Your task to perform on an android device: Open network settings Image 0: 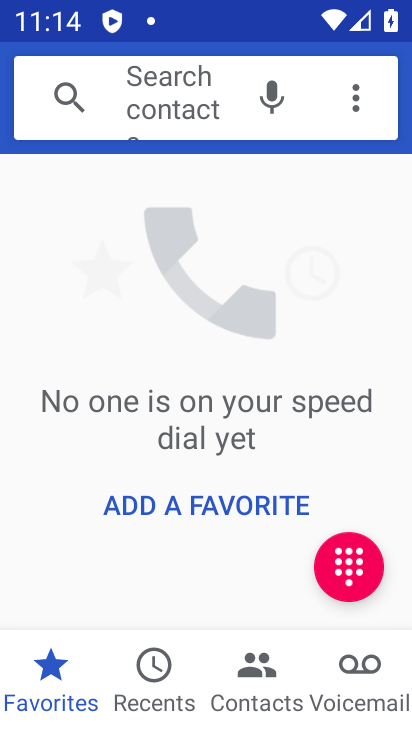
Step 0: press home button
Your task to perform on an android device: Open network settings Image 1: 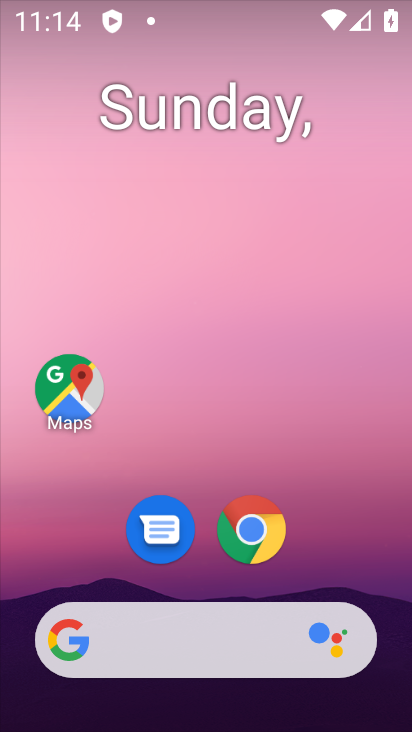
Step 1: drag from (384, 588) to (229, 15)
Your task to perform on an android device: Open network settings Image 2: 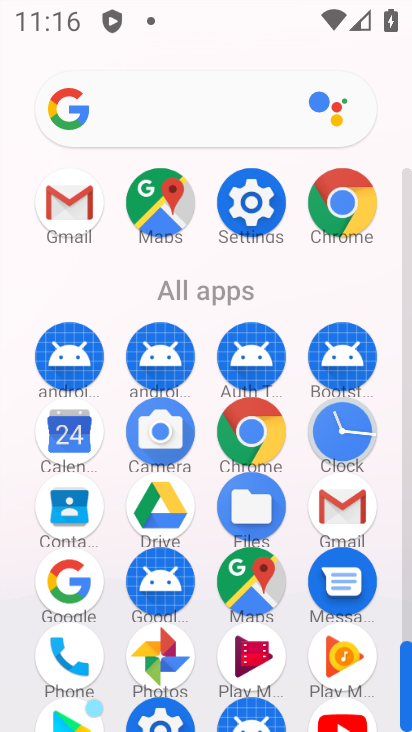
Step 2: click (259, 209)
Your task to perform on an android device: Open network settings Image 3: 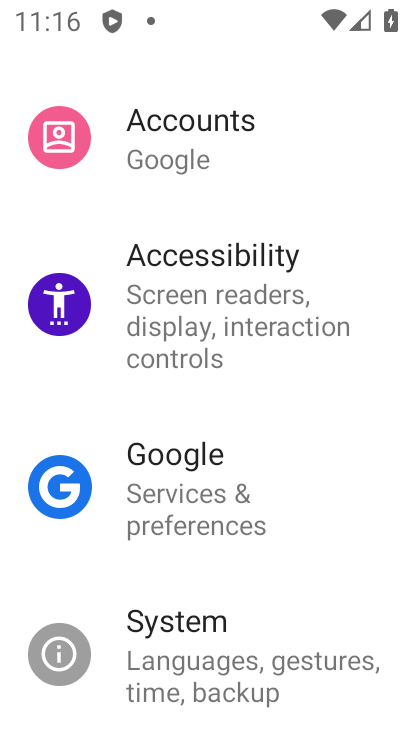
Step 3: drag from (222, 207) to (223, 719)
Your task to perform on an android device: Open network settings Image 4: 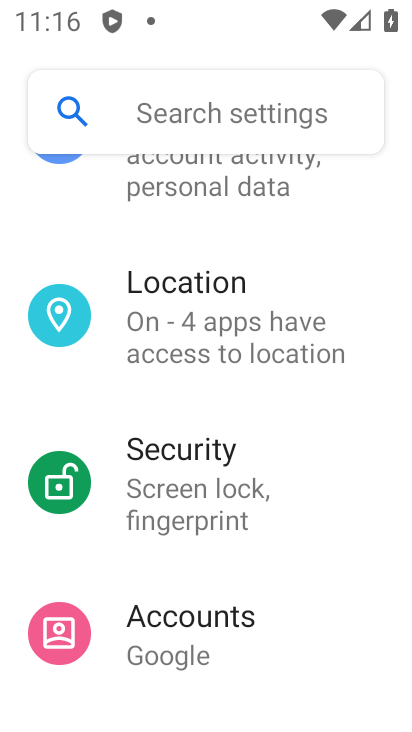
Step 4: drag from (180, 239) to (184, 615)
Your task to perform on an android device: Open network settings Image 5: 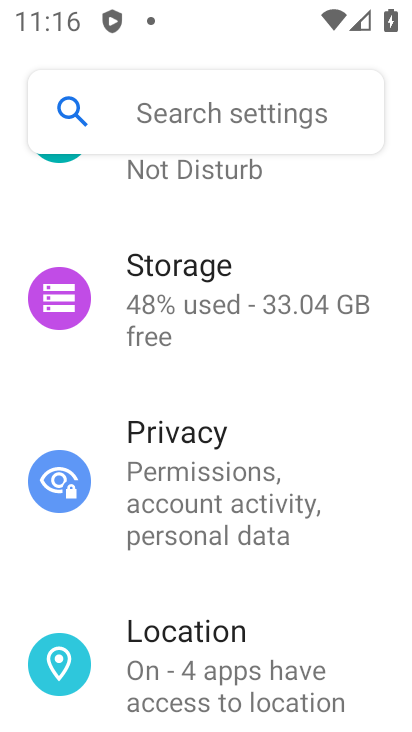
Step 5: drag from (154, 229) to (155, 720)
Your task to perform on an android device: Open network settings Image 6: 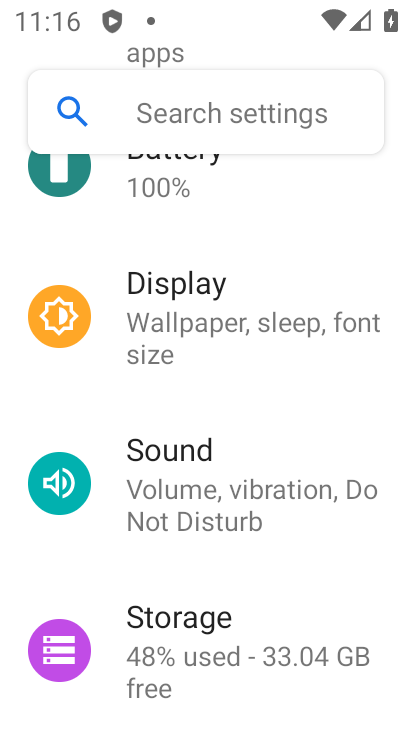
Step 6: drag from (164, 215) to (177, 657)
Your task to perform on an android device: Open network settings Image 7: 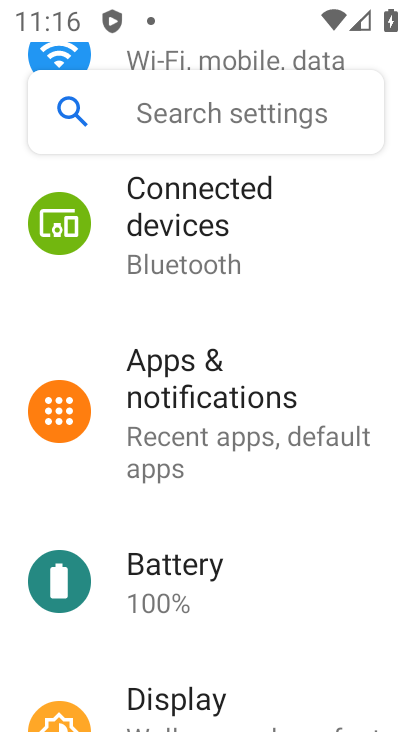
Step 7: drag from (157, 242) to (192, 646)
Your task to perform on an android device: Open network settings Image 8: 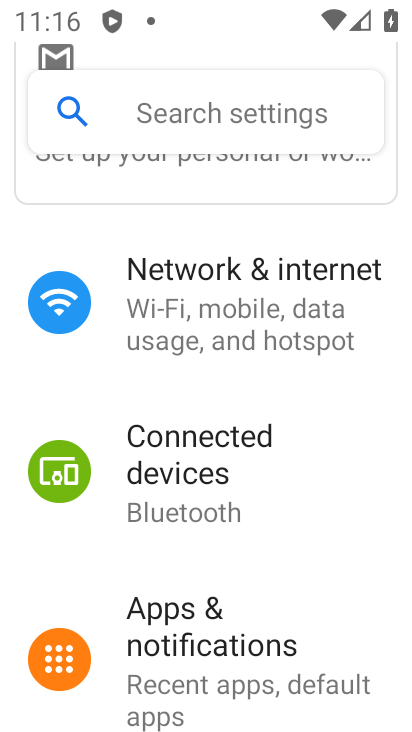
Step 8: click (185, 324)
Your task to perform on an android device: Open network settings Image 9: 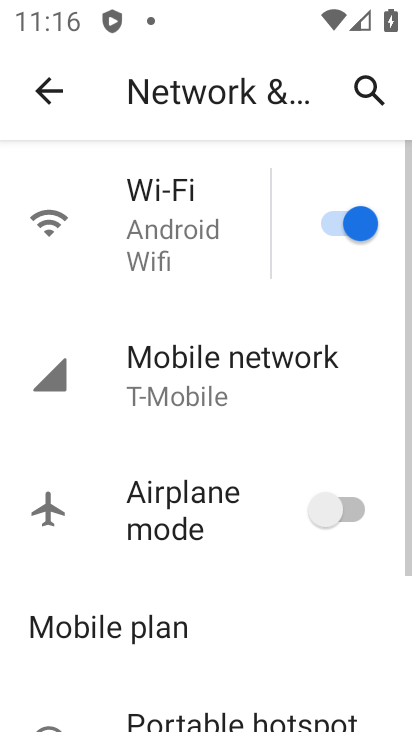
Step 9: task complete